Your task to perform on an android device: Open Amazon Image 0: 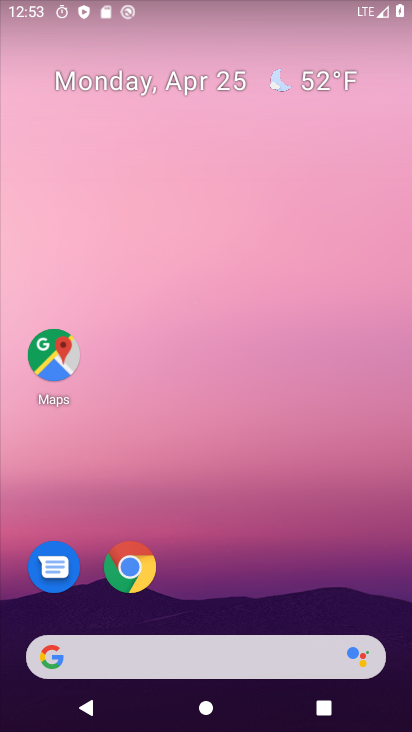
Step 0: click (130, 563)
Your task to perform on an android device: Open Amazon Image 1: 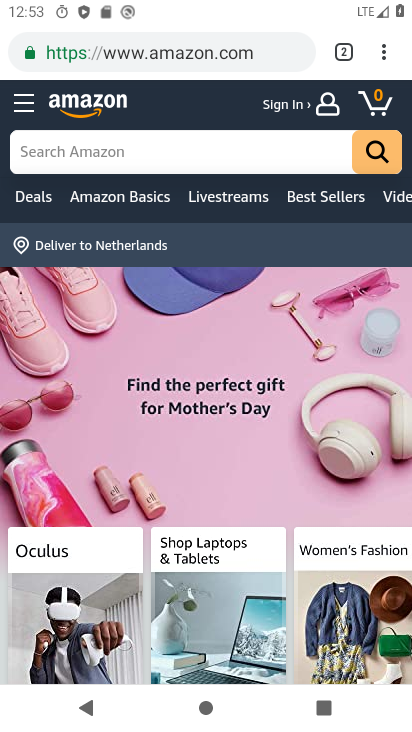
Step 1: task complete